Your task to perform on an android device: delete location history Image 0: 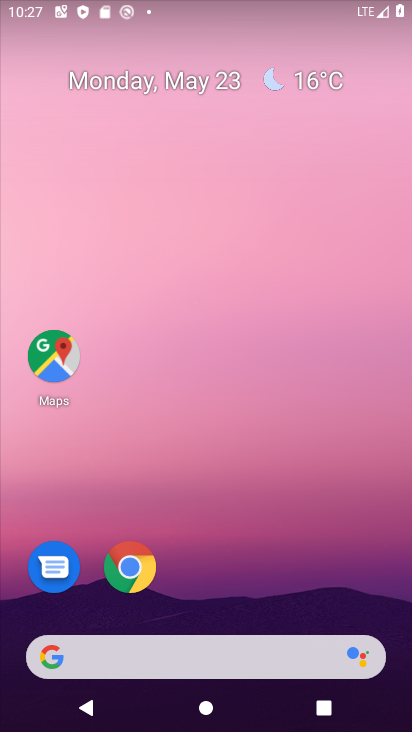
Step 0: drag from (174, 603) to (228, 165)
Your task to perform on an android device: delete location history Image 1: 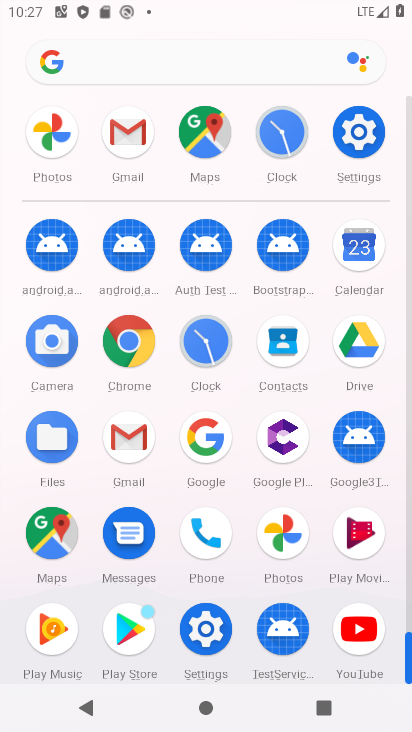
Step 1: click (349, 140)
Your task to perform on an android device: delete location history Image 2: 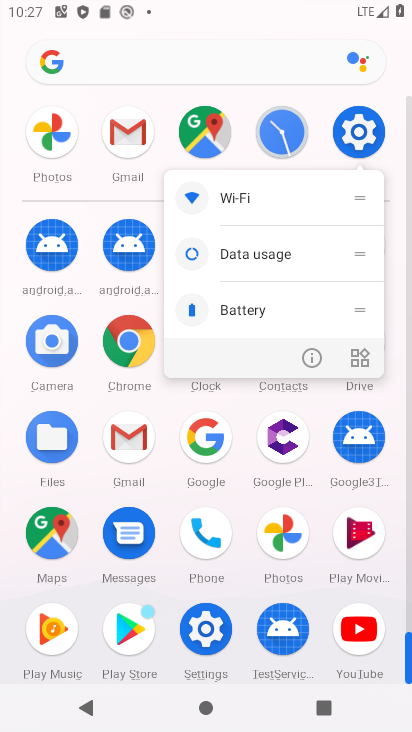
Step 2: click (310, 355)
Your task to perform on an android device: delete location history Image 3: 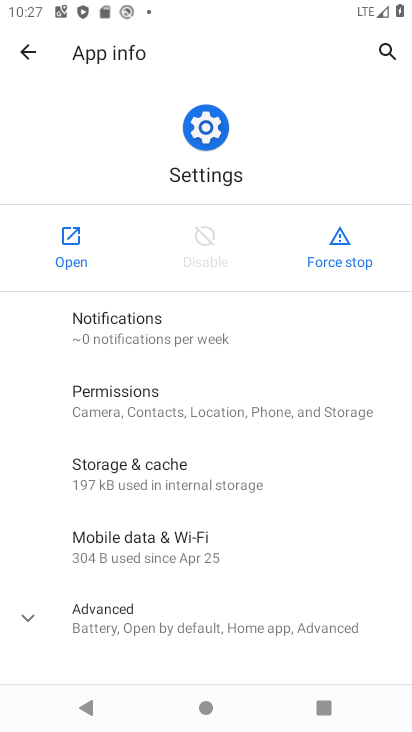
Step 3: click (41, 253)
Your task to perform on an android device: delete location history Image 4: 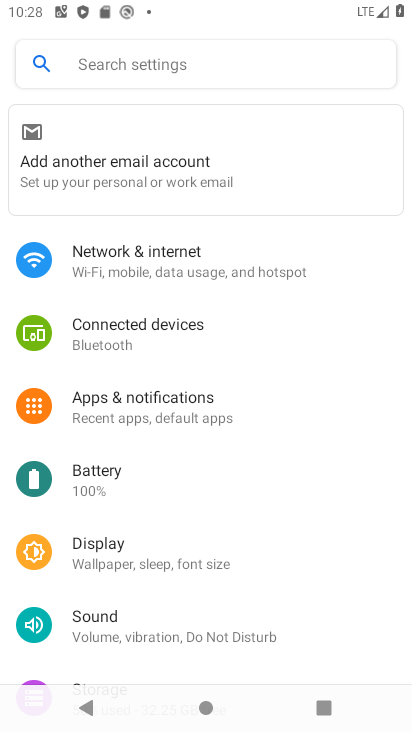
Step 4: drag from (194, 586) to (237, 301)
Your task to perform on an android device: delete location history Image 5: 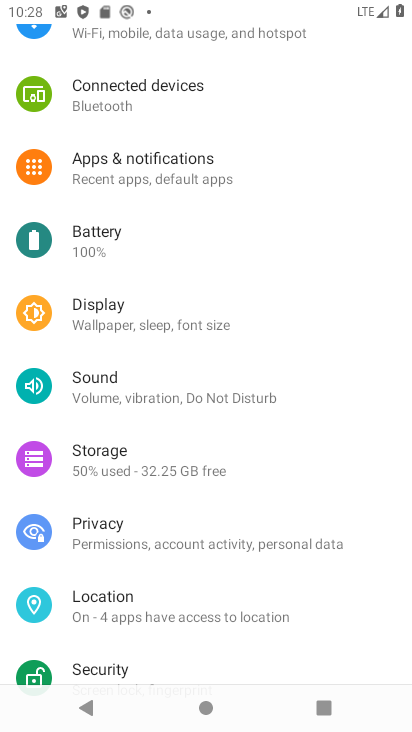
Step 5: click (135, 604)
Your task to perform on an android device: delete location history Image 6: 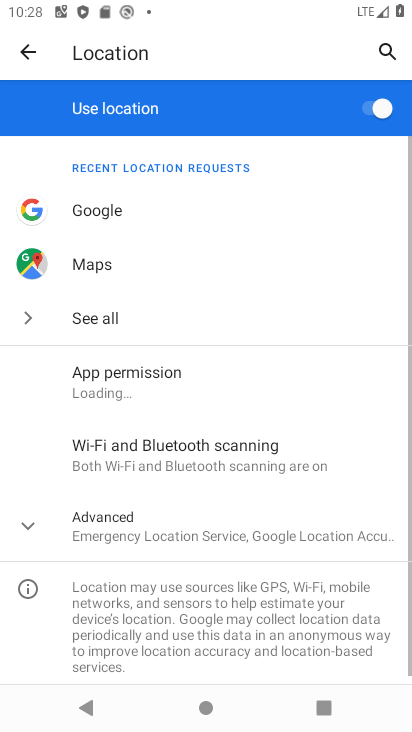
Step 6: drag from (259, 525) to (386, 27)
Your task to perform on an android device: delete location history Image 7: 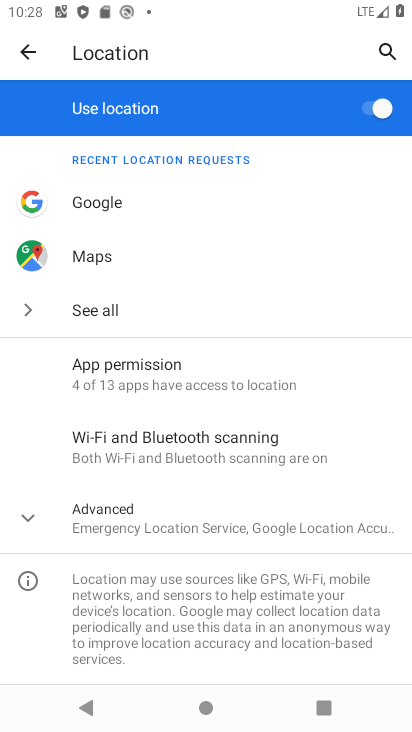
Step 7: click (106, 498)
Your task to perform on an android device: delete location history Image 8: 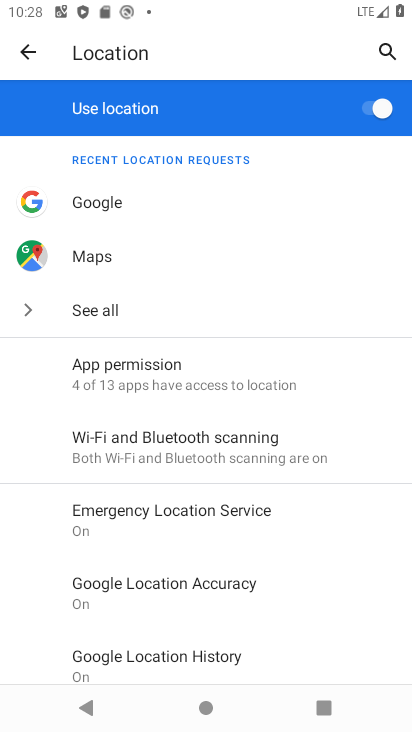
Step 8: click (175, 647)
Your task to perform on an android device: delete location history Image 9: 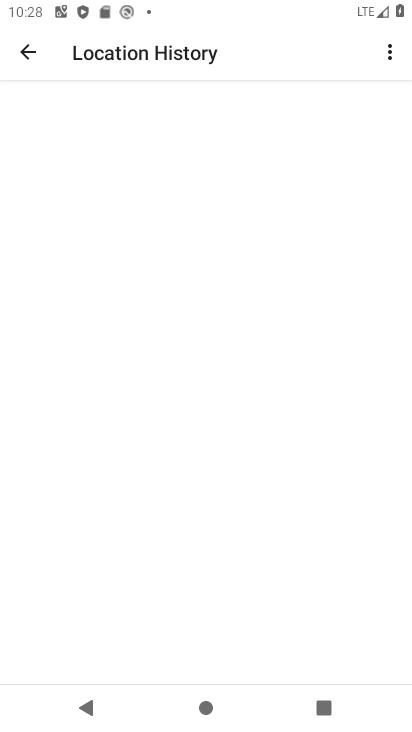
Step 9: drag from (200, 627) to (312, 53)
Your task to perform on an android device: delete location history Image 10: 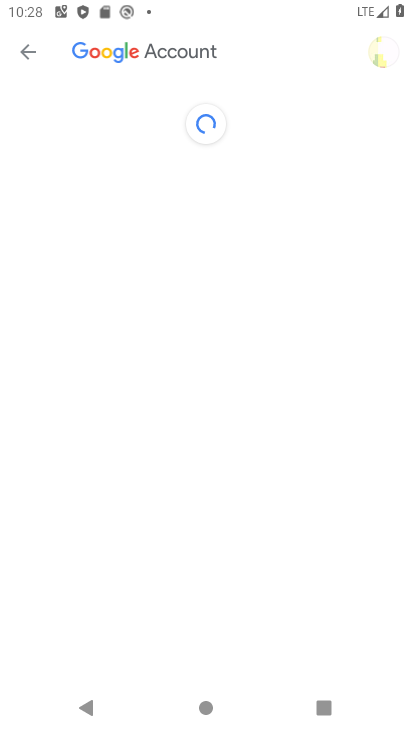
Step 10: drag from (226, 623) to (277, 145)
Your task to perform on an android device: delete location history Image 11: 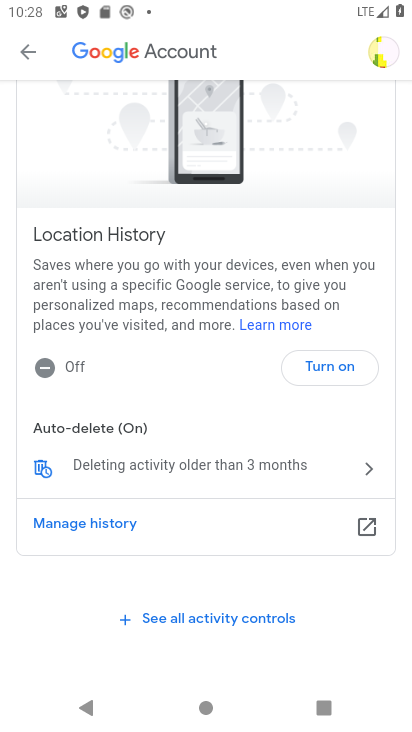
Step 11: drag from (215, 558) to (297, 141)
Your task to perform on an android device: delete location history Image 12: 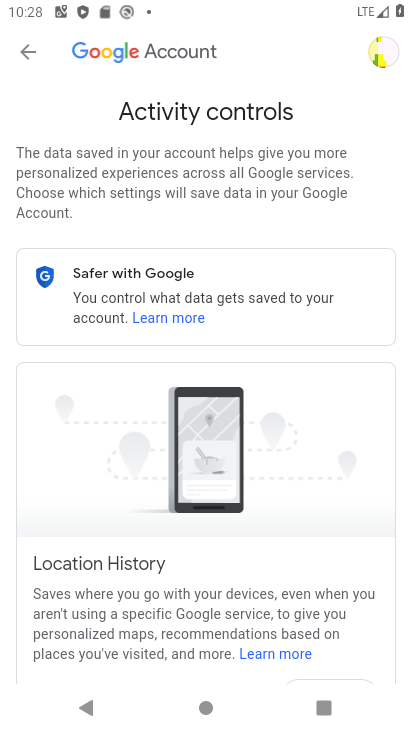
Step 12: drag from (257, 308) to (287, 605)
Your task to perform on an android device: delete location history Image 13: 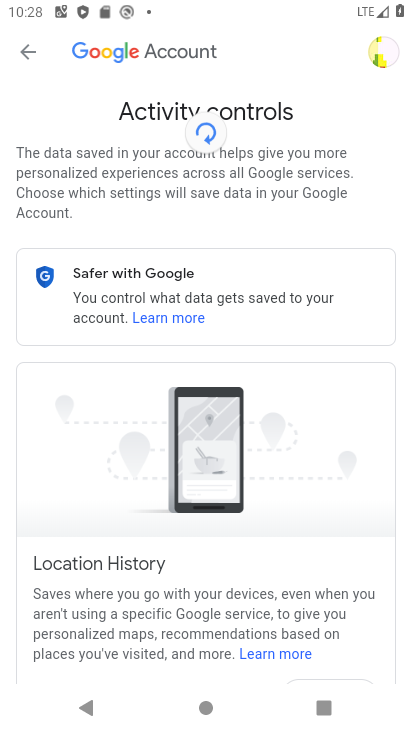
Step 13: drag from (259, 535) to (365, 179)
Your task to perform on an android device: delete location history Image 14: 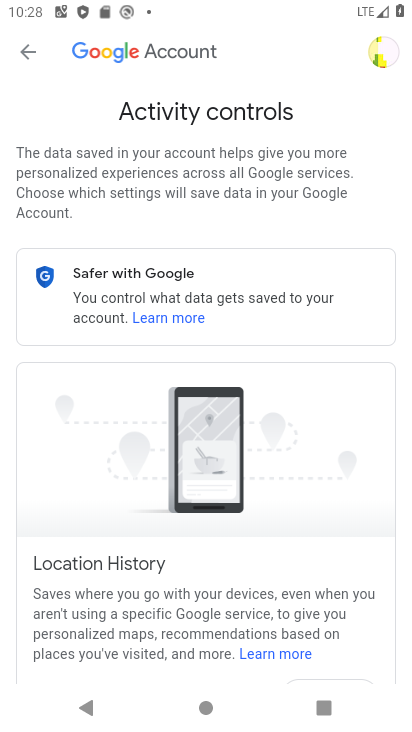
Step 14: drag from (199, 568) to (276, 193)
Your task to perform on an android device: delete location history Image 15: 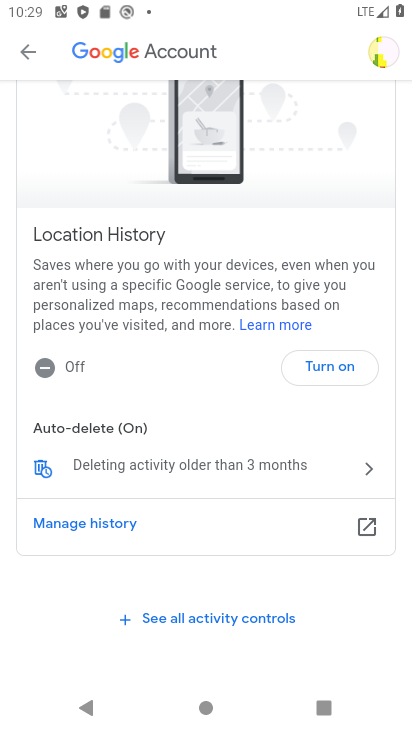
Step 15: drag from (271, 566) to (269, 247)
Your task to perform on an android device: delete location history Image 16: 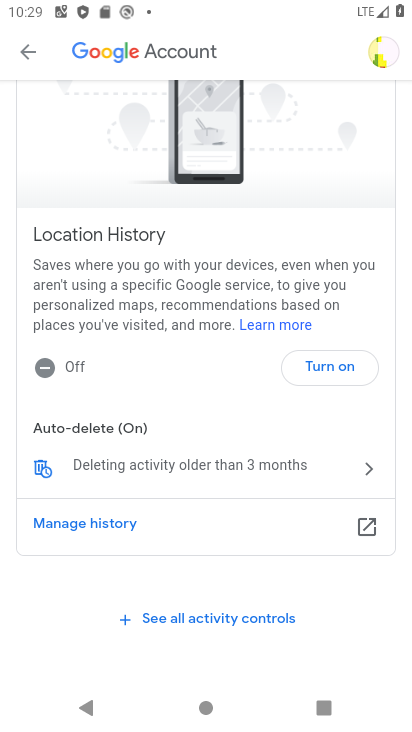
Step 16: click (314, 374)
Your task to perform on an android device: delete location history Image 17: 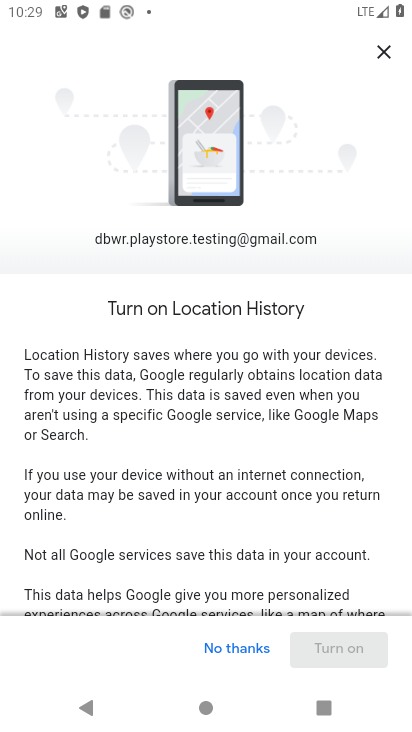
Step 17: drag from (189, 556) to (309, 12)
Your task to perform on an android device: delete location history Image 18: 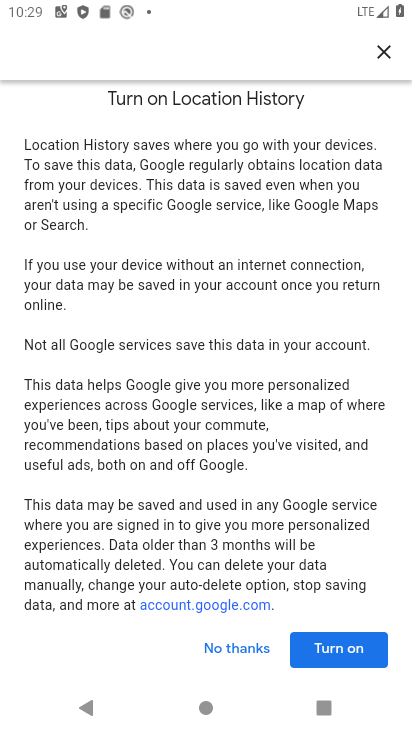
Step 18: click (334, 657)
Your task to perform on an android device: delete location history Image 19: 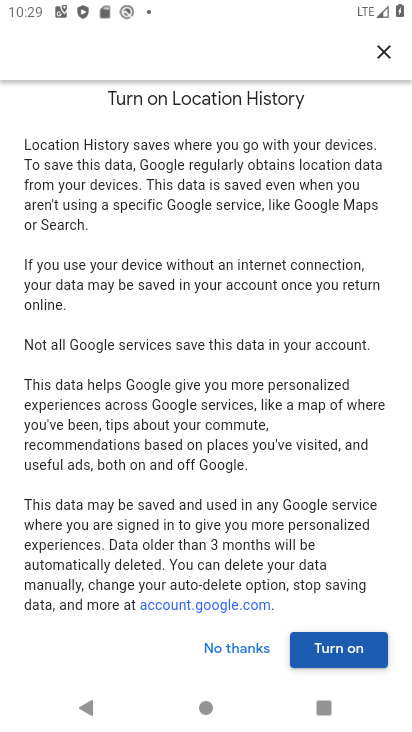
Step 19: task complete